Your task to perform on an android device: Show me productivity apps on the Play Store Image 0: 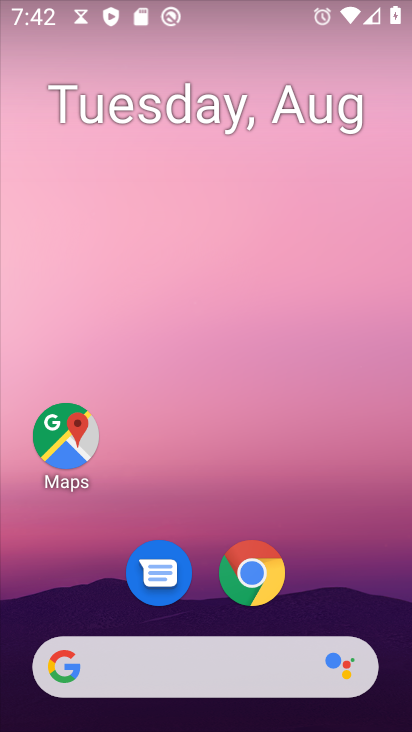
Step 0: press home button
Your task to perform on an android device: Show me productivity apps on the Play Store Image 1: 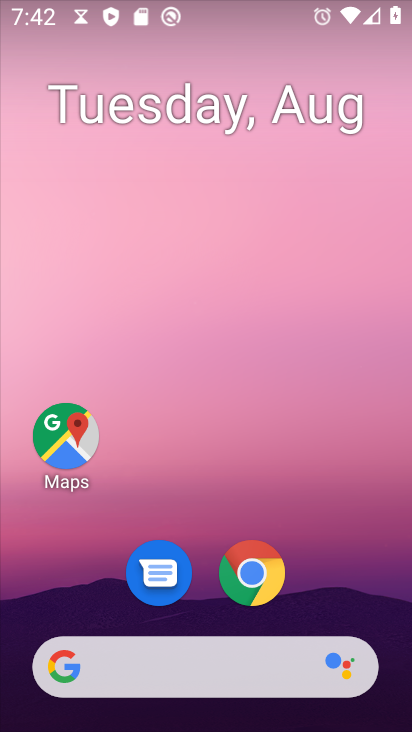
Step 1: drag from (205, 611) to (222, 63)
Your task to perform on an android device: Show me productivity apps on the Play Store Image 2: 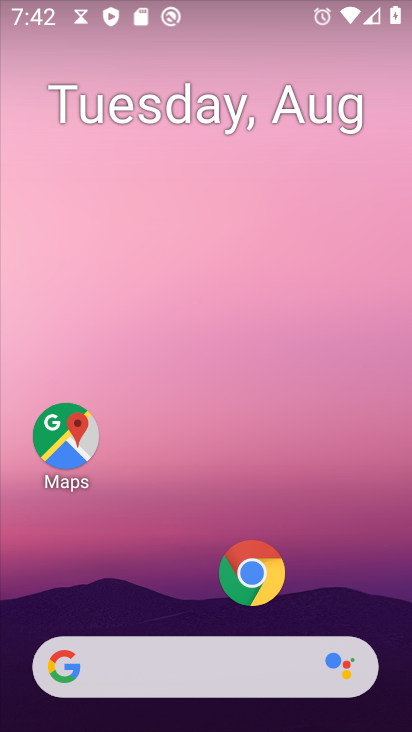
Step 2: drag from (194, 608) to (169, 107)
Your task to perform on an android device: Show me productivity apps on the Play Store Image 3: 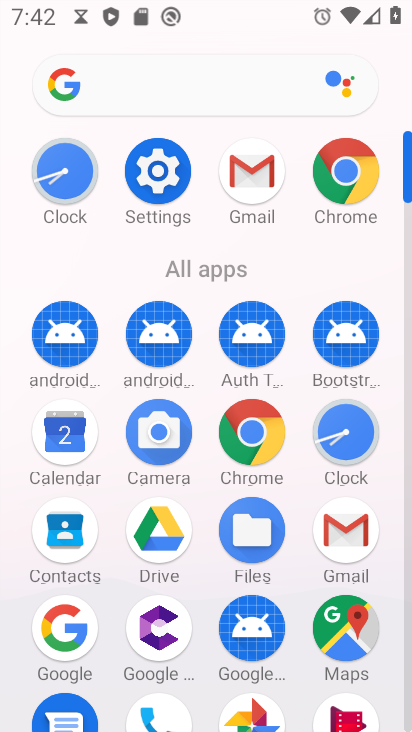
Step 3: drag from (198, 672) to (213, 149)
Your task to perform on an android device: Show me productivity apps on the Play Store Image 4: 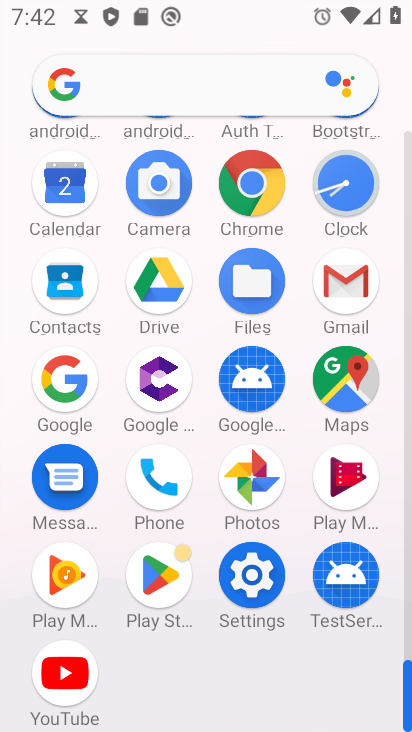
Step 4: click (163, 564)
Your task to perform on an android device: Show me productivity apps on the Play Store Image 5: 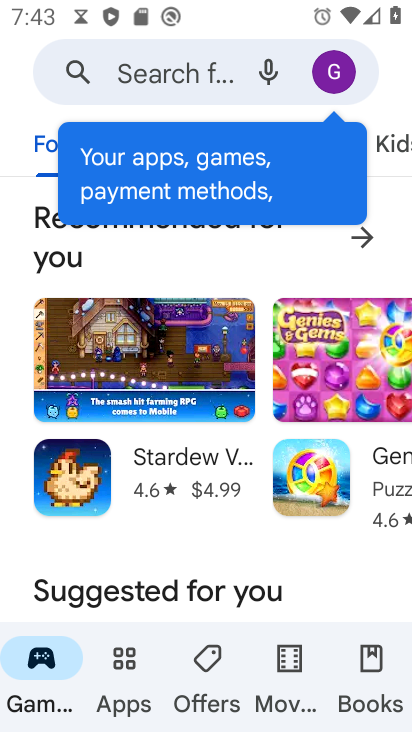
Step 5: click (125, 653)
Your task to perform on an android device: Show me productivity apps on the Play Store Image 6: 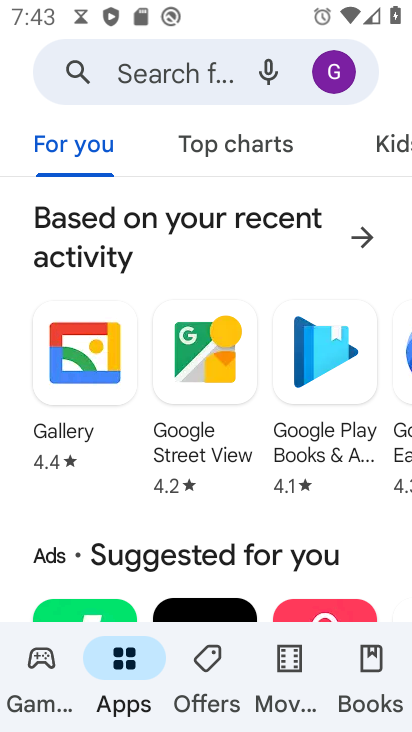
Step 6: drag from (387, 145) to (167, 145)
Your task to perform on an android device: Show me productivity apps on the Play Store Image 7: 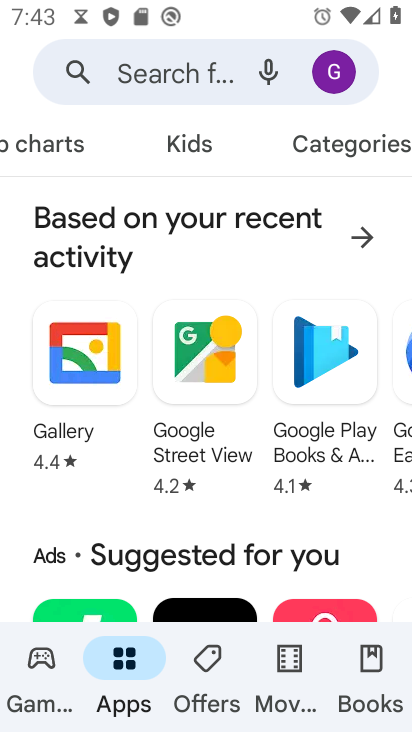
Step 7: click (363, 148)
Your task to perform on an android device: Show me productivity apps on the Play Store Image 8: 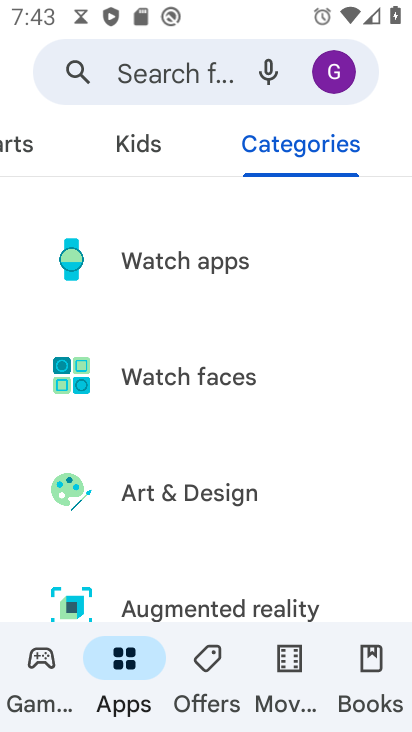
Step 8: drag from (227, 588) to (225, 190)
Your task to perform on an android device: Show me productivity apps on the Play Store Image 9: 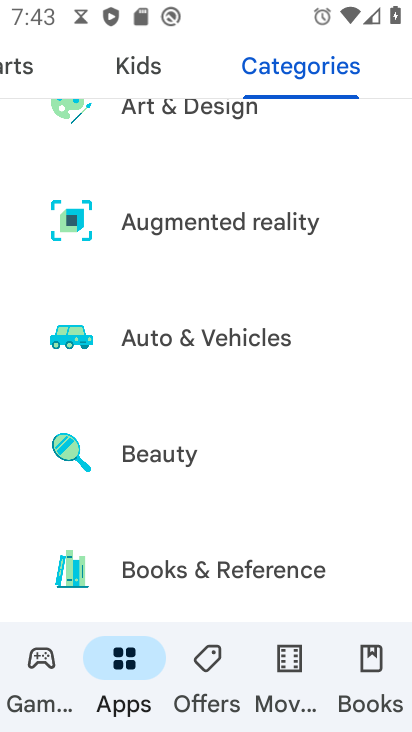
Step 9: drag from (203, 573) to (225, 57)
Your task to perform on an android device: Show me productivity apps on the Play Store Image 10: 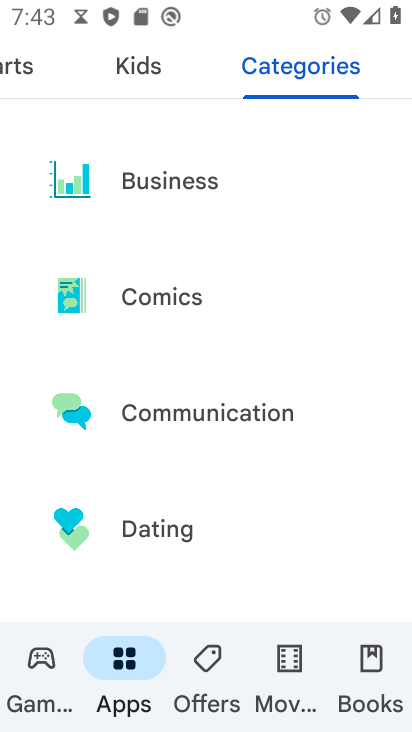
Step 10: drag from (182, 593) to (208, 99)
Your task to perform on an android device: Show me productivity apps on the Play Store Image 11: 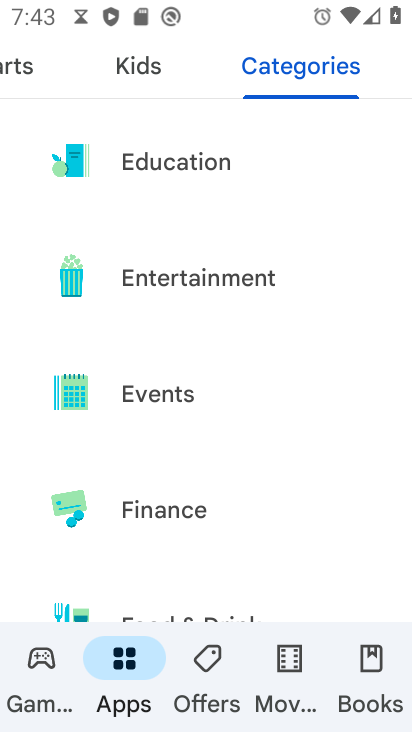
Step 11: drag from (217, 591) to (212, 126)
Your task to perform on an android device: Show me productivity apps on the Play Store Image 12: 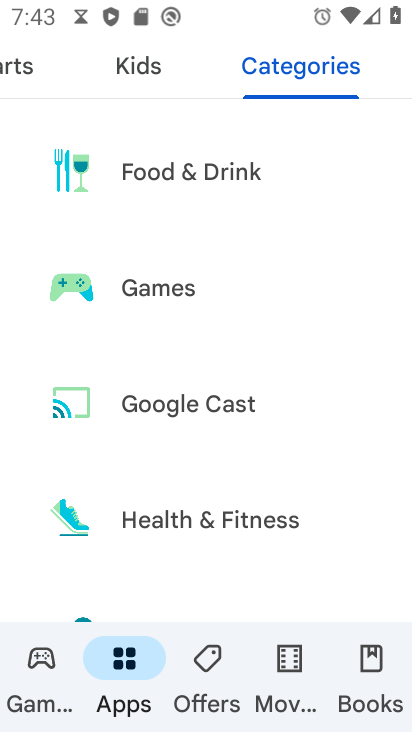
Step 12: drag from (225, 601) to (253, 110)
Your task to perform on an android device: Show me productivity apps on the Play Store Image 13: 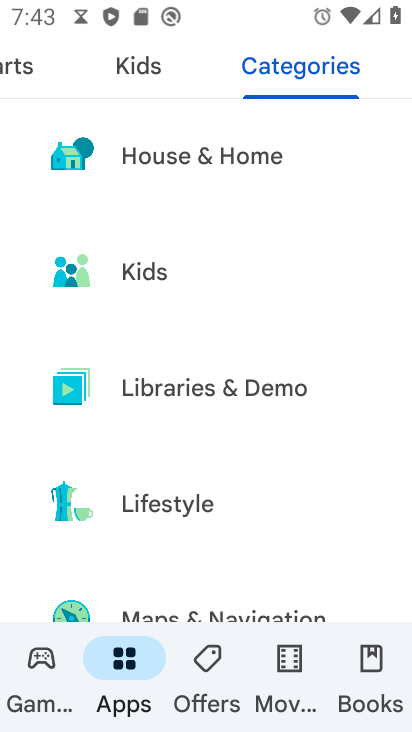
Step 13: drag from (248, 598) to (229, 93)
Your task to perform on an android device: Show me productivity apps on the Play Store Image 14: 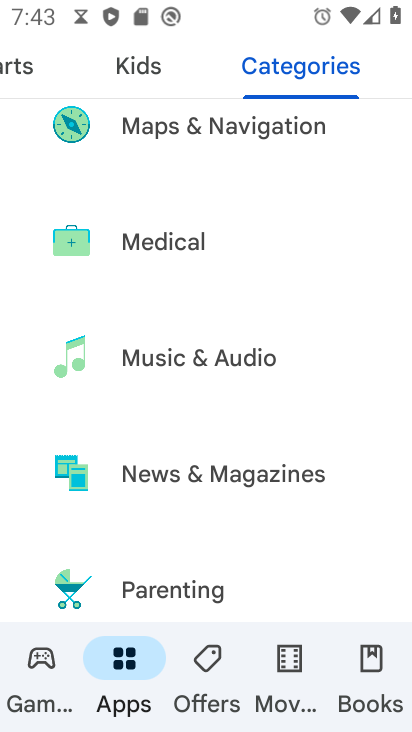
Step 14: drag from (239, 589) to (246, 84)
Your task to perform on an android device: Show me productivity apps on the Play Store Image 15: 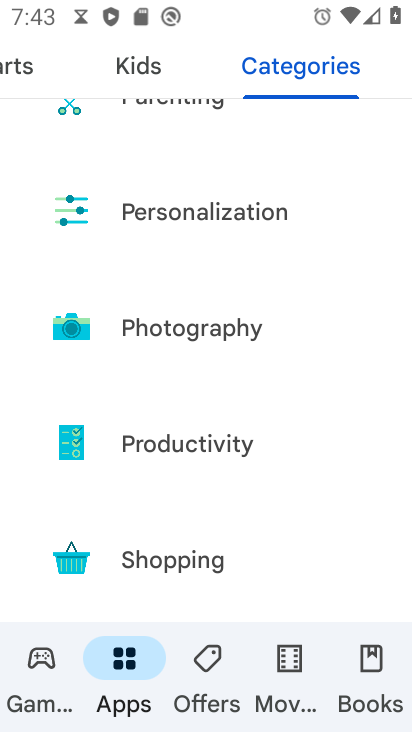
Step 15: click (132, 438)
Your task to perform on an android device: Show me productivity apps on the Play Store Image 16: 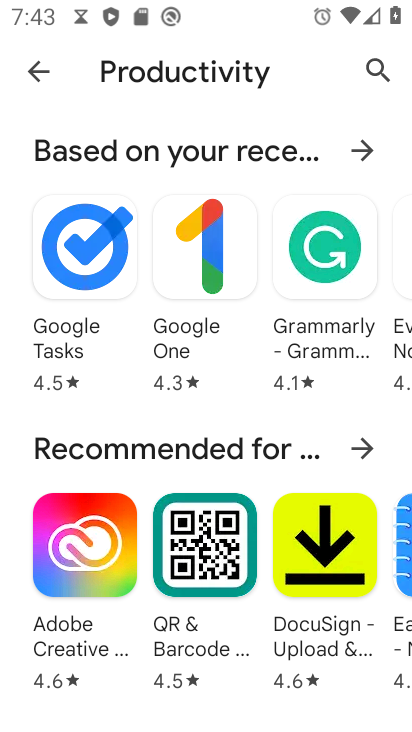
Step 16: drag from (257, 637) to (273, 196)
Your task to perform on an android device: Show me productivity apps on the Play Store Image 17: 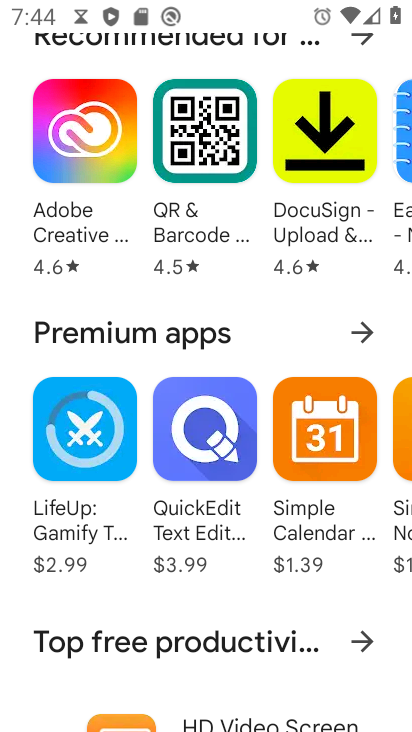
Step 17: drag from (256, 665) to (246, 149)
Your task to perform on an android device: Show me productivity apps on the Play Store Image 18: 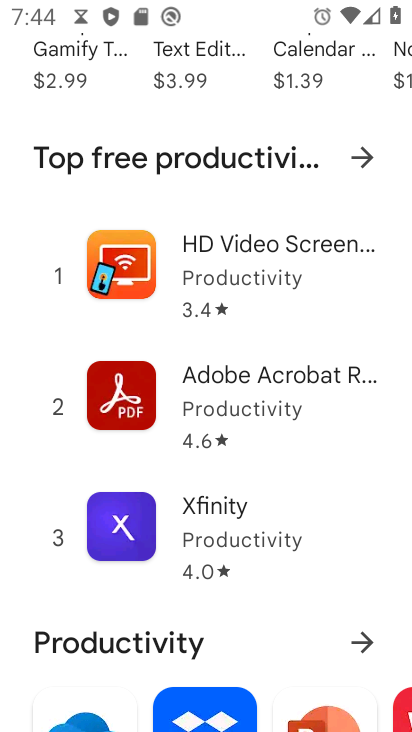
Step 18: click (369, 636)
Your task to perform on an android device: Show me productivity apps on the Play Store Image 19: 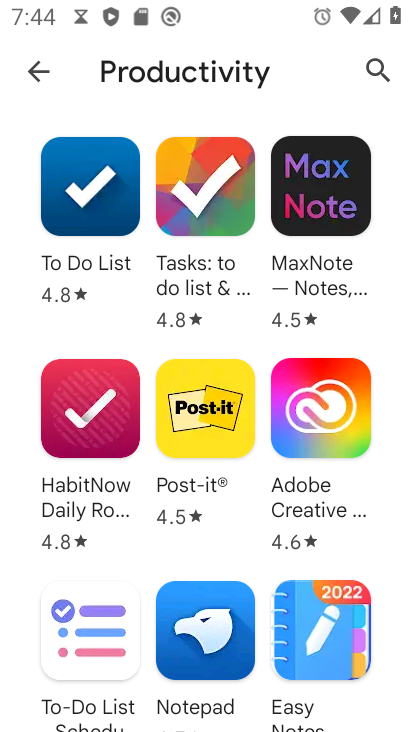
Step 19: task complete